Your task to perform on an android device: change alarm snooze length Image 0: 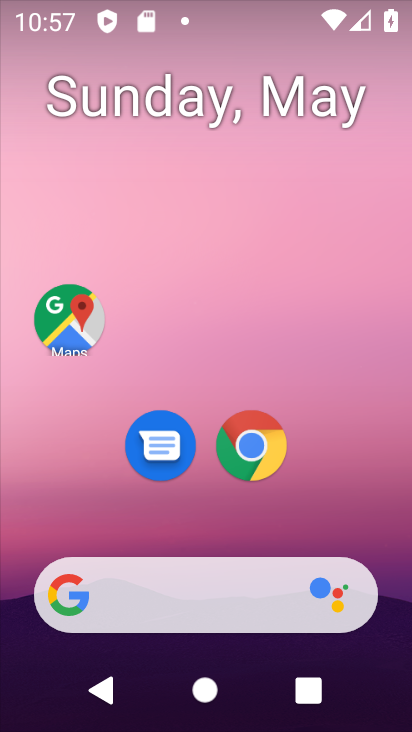
Step 0: drag from (228, 274) to (244, 148)
Your task to perform on an android device: change alarm snooze length Image 1: 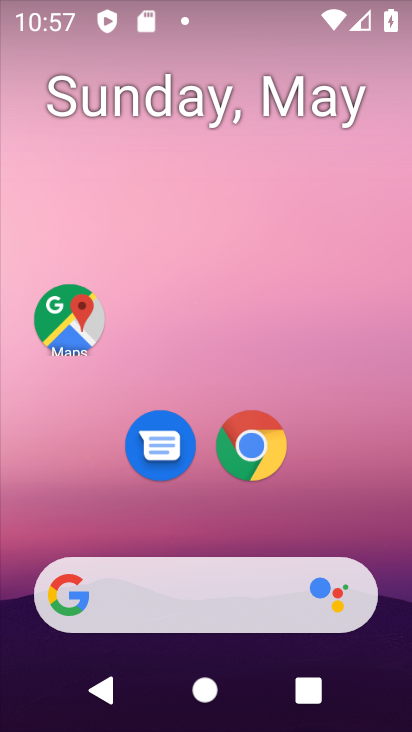
Step 1: drag from (224, 530) to (296, 170)
Your task to perform on an android device: change alarm snooze length Image 2: 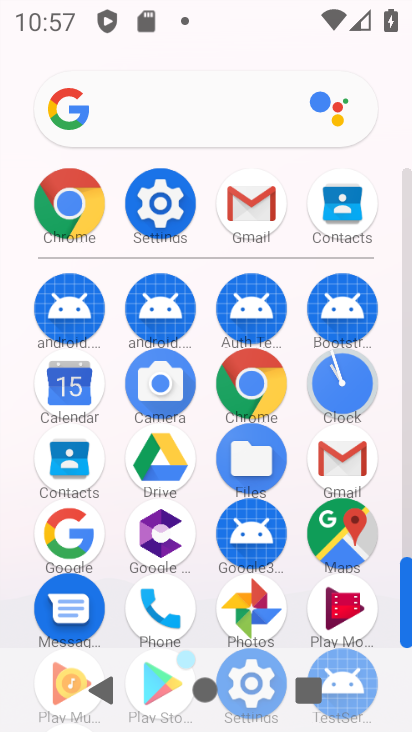
Step 2: drag from (208, 552) to (233, 270)
Your task to perform on an android device: change alarm snooze length Image 3: 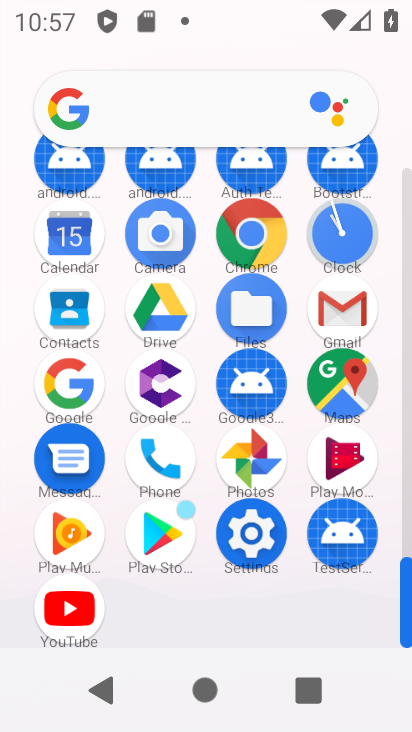
Step 3: click (339, 234)
Your task to perform on an android device: change alarm snooze length Image 4: 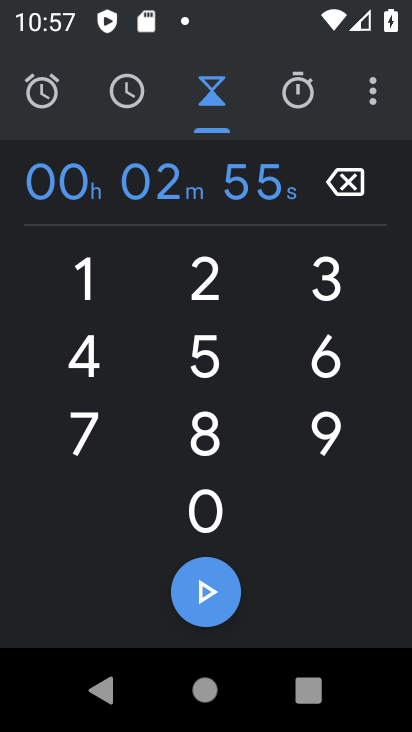
Step 4: click (371, 98)
Your task to perform on an android device: change alarm snooze length Image 5: 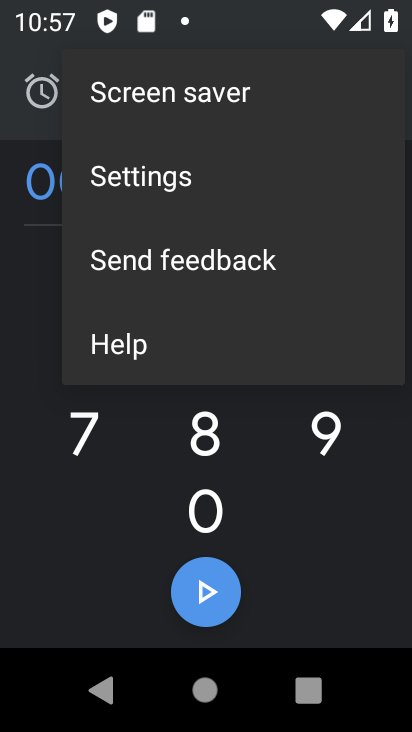
Step 5: click (185, 179)
Your task to perform on an android device: change alarm snooze length Image 6: 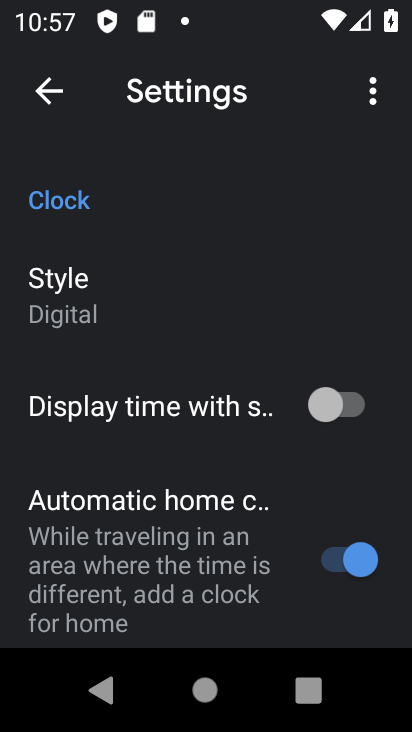
Step 6: drag from (155, 453) to (224, 107)
Your task to perform on an android device: change alarm snooze length Image 7: 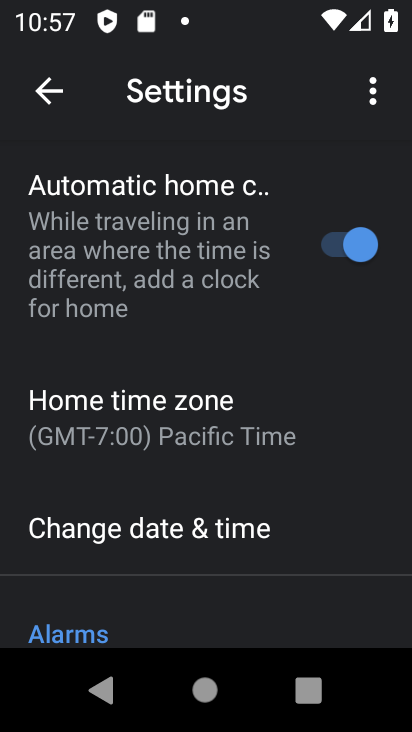
Step 7: drag from (175, 545) to (280, 228)
Your task to perform on an android device: change alarm snooze length Image 8: 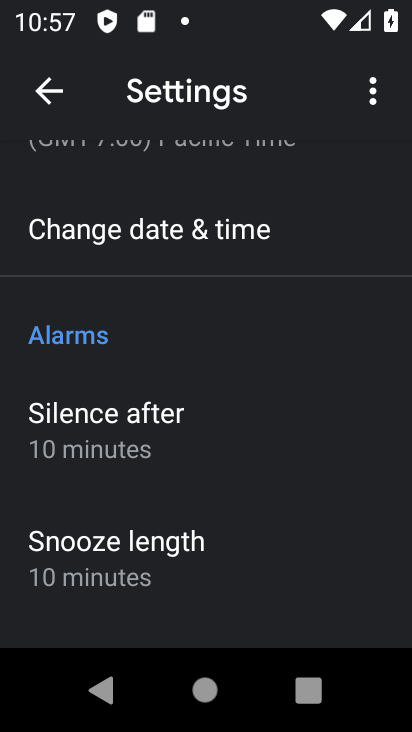
Step 8: click (137, 553)
Your task to perform on an android device: change alarm snooze length Image 9: 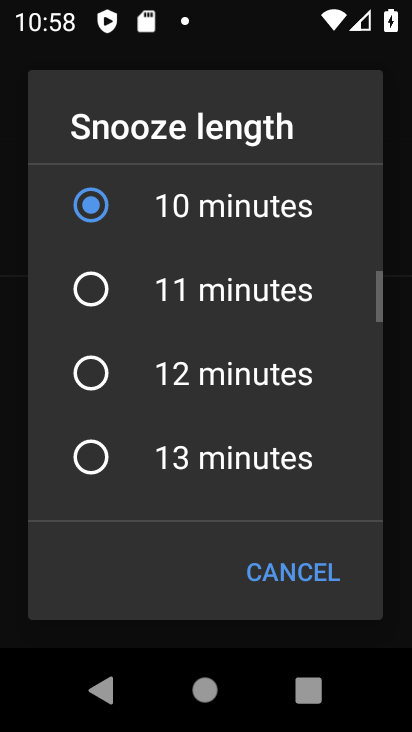
Step 9: click (93, 284)
Your task to perform on an android device: change alarm snooze length Image 10: 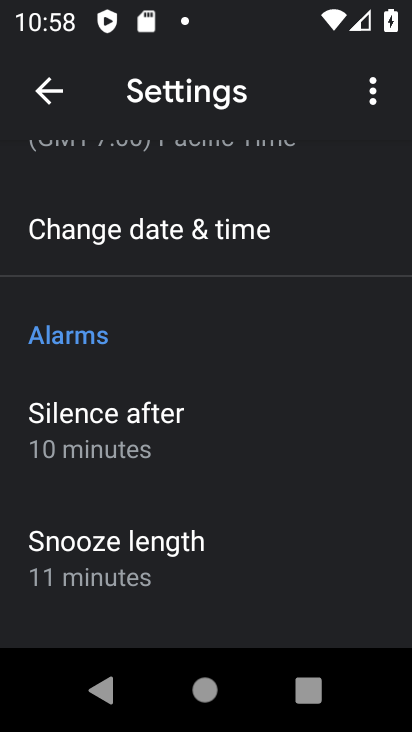
Step 10: task complete